Your task to perform on an android device: Open internet settings Image 0: 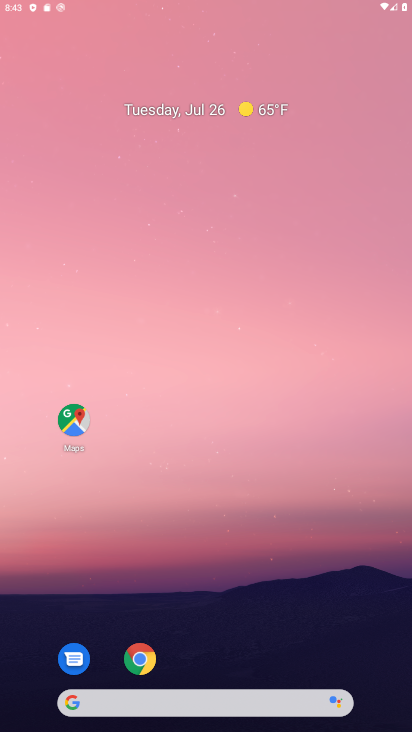
Step 0: press home button
Your task to perform on an android device: Open internet settings Image 1: 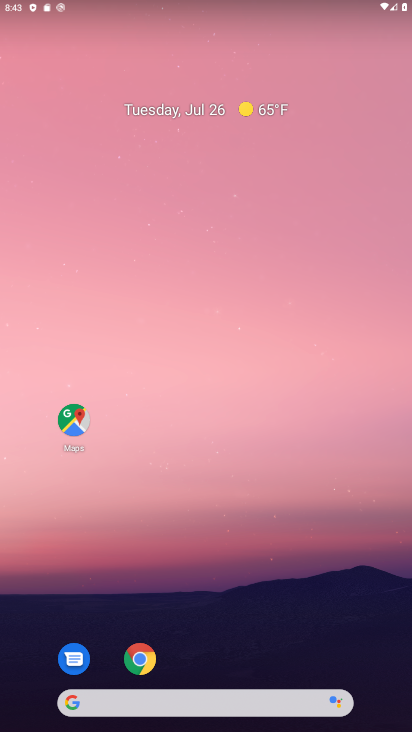
Step 1: drag from (151, 642) to (177, 317)
Your task to perform on an android device: Open internet settings Image 2: 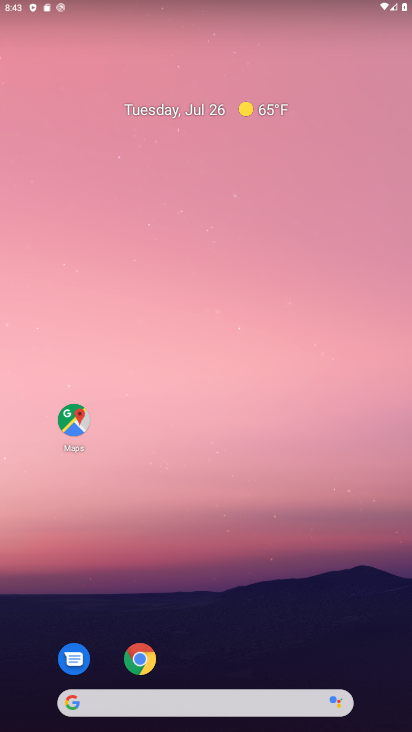
Step 2: drag from (177, 317) to (179, 481)
Your task to perform on an android device: Open internet settings Image 3: 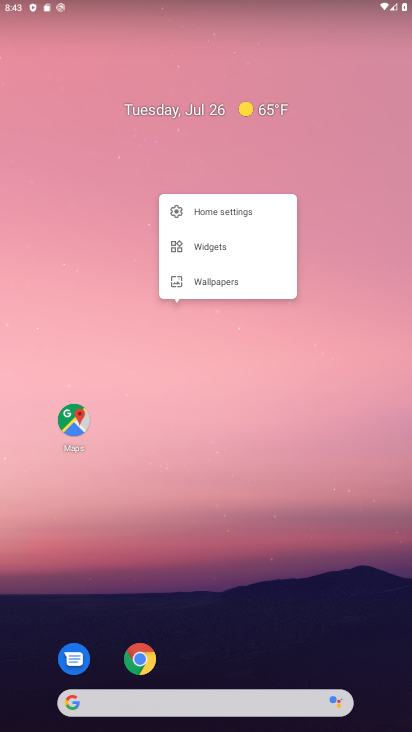
Step 3: click (179, 481)
Your task to perform on an android device: Open internet settings Image 4: 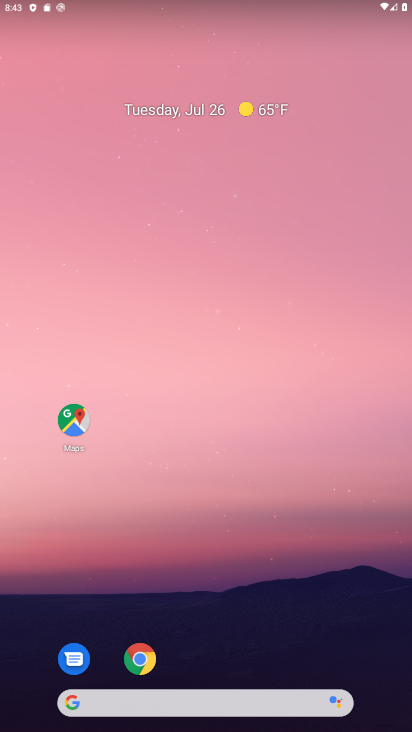
Step 4: drag from (212, 582) to (228, 43)
Your task to perform on an android device: Open internet settings Image 5: 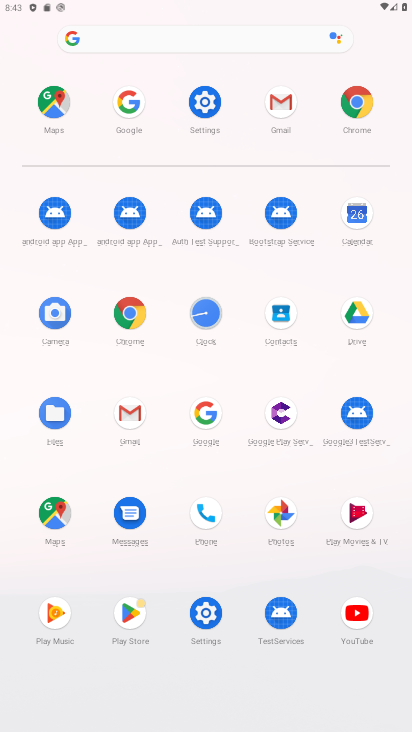
Step 5: click (209, 109)
Your task to perform on an android device: Open internet settings Image 6: 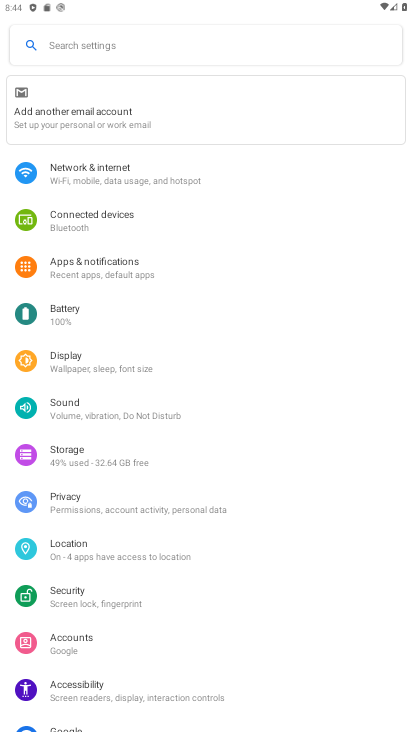
Step 6: click (100, 173)
Your task to perform on an android device: Open internet settings Image 7: 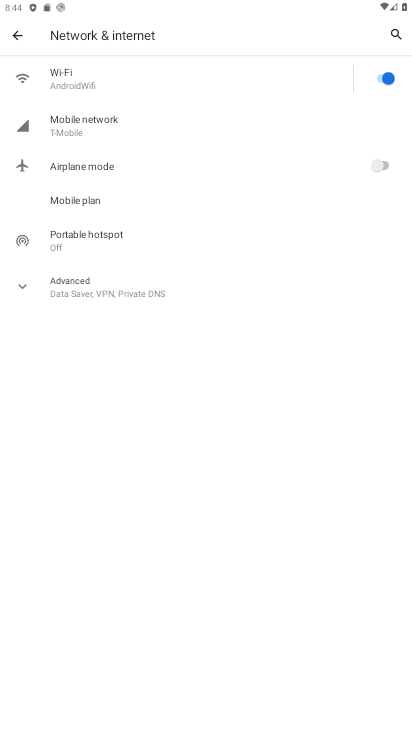
Step 7: task complete